Your task to perform on an android device: What's the weather going to be tomorrow? Image 0: 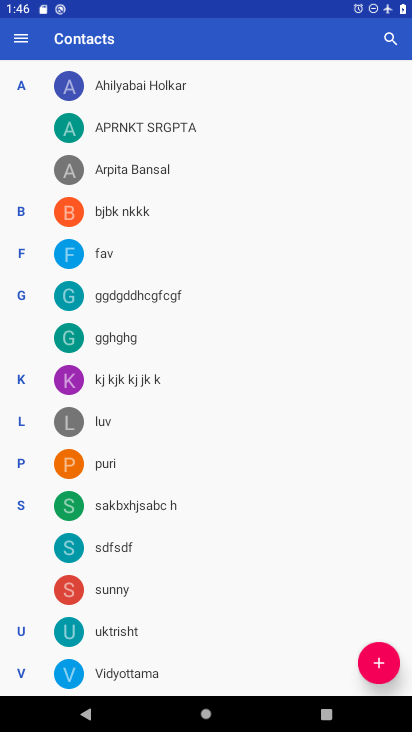
Step 0: press home button
Your task to perform on an android device: What's the weather going to be tomorrow? Image 1: 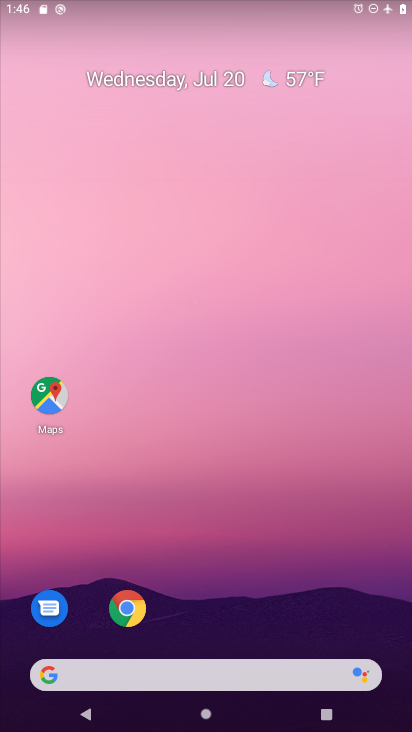
Step 1: click (207, 674)
Your task to perform on an android device: What's the weather going to be tomorrow? Image 2: 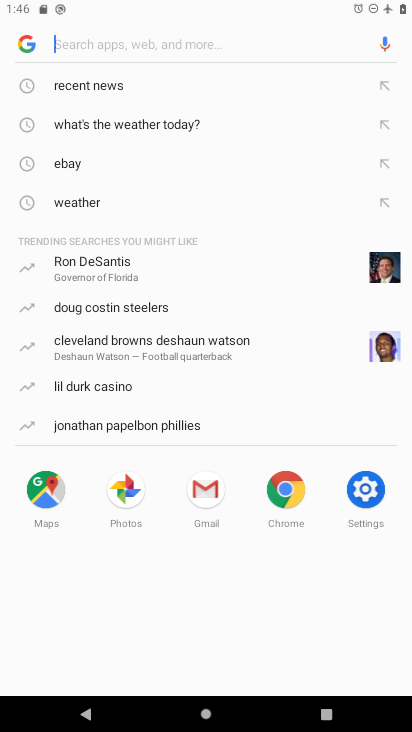
Step 2: type "What's the weather going to be tomorrow?"
Your task to perform on an android device: What's the weather going to be tomorrow? Image 3: 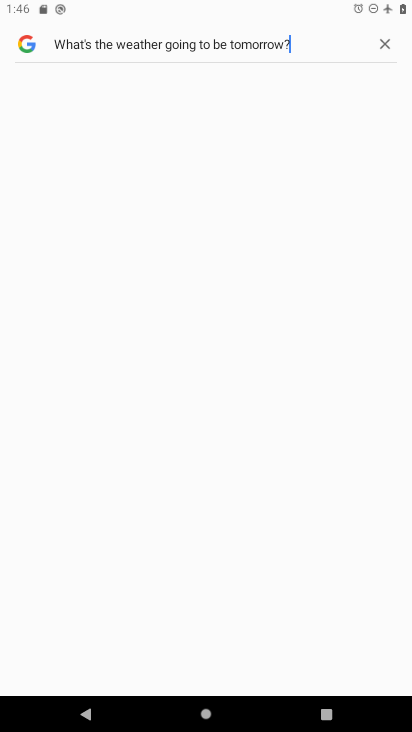
Step 3: press enter
Your task to perform on an android device: What's the weather going to be tomorrow? Image 4: 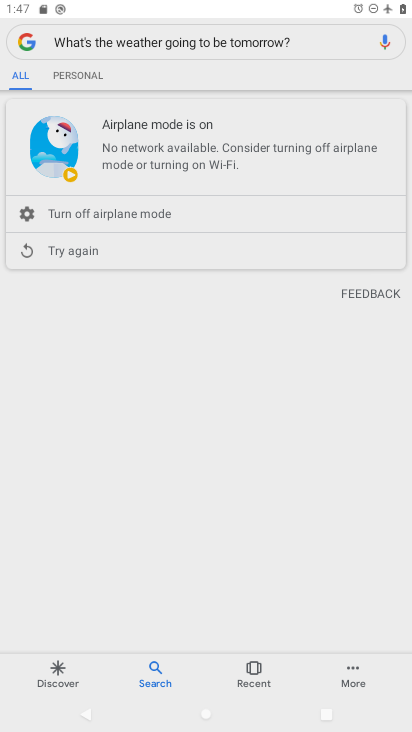
Step 4: task complete